Your task to perform on an android device: add a label to a message in the gmail app Image 0: 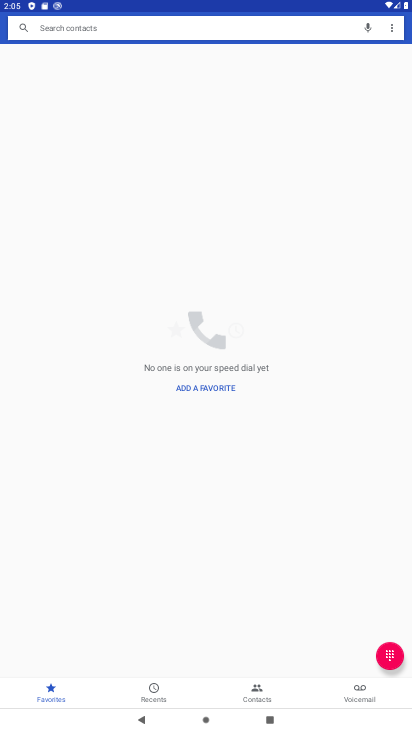
Step 0: press home button
Your task to perform on an android device: add a label to a message in the gmail app Image 1: 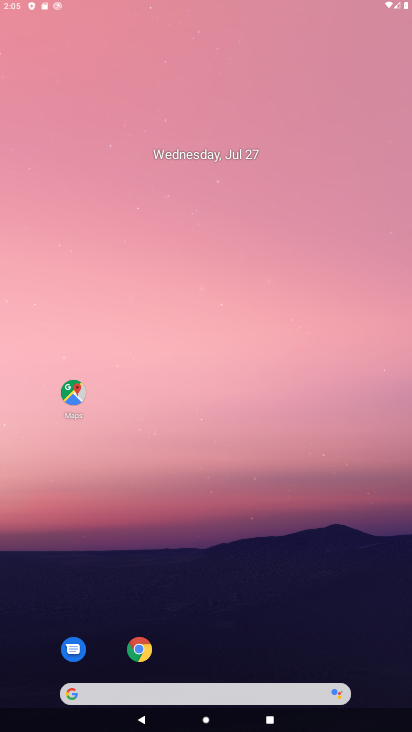
Step 1: drag from (381, 606) to (124, 7)
Your task to perform on an android device: add a label to a message in the gmail app Image 2: 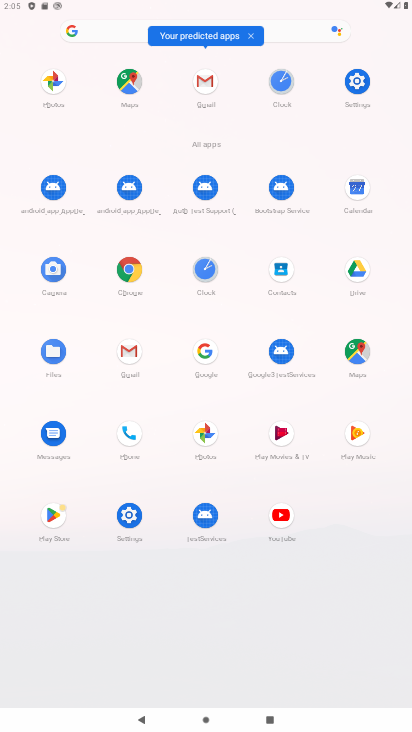
Step 2: click (130, 363)
Your task to perform on an android device: add a label to a message in the gmail app Image 3: 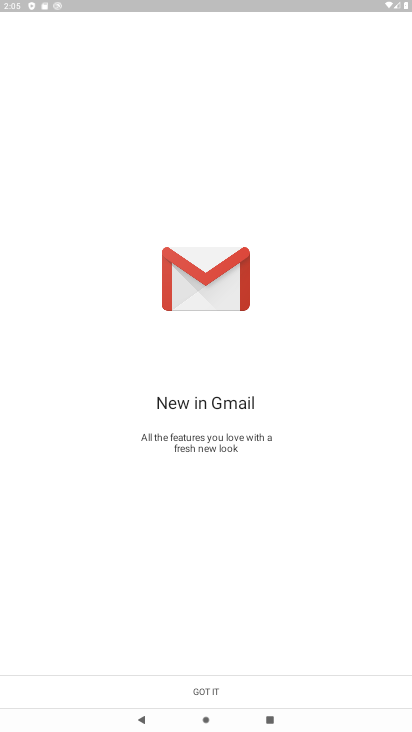
Step 3: click (203, 682)
Your task to perform on an android device: add a label to a message in the gmail app Image 4: 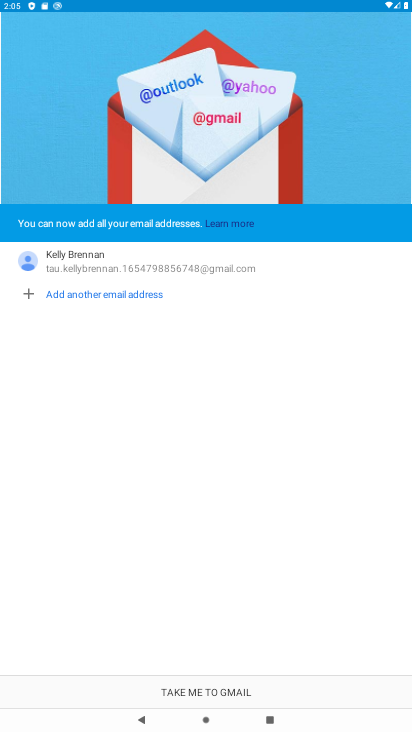
Step 4: click (198, 689)
Your task to perform on an android device: add a label to a message in the gmail app Image 5: 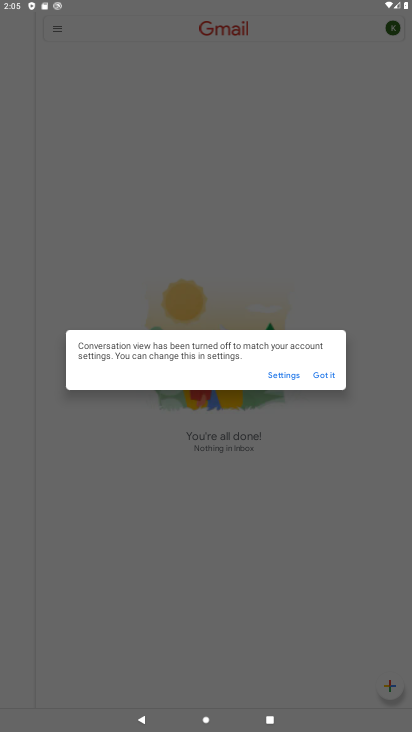
Step 5: click (322, 376)
Your task to perform on an android device: add a label to a message in the gmail app Image 6: 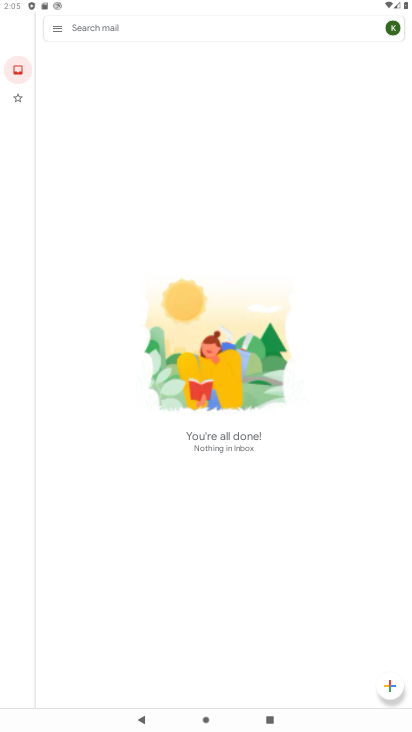
Step 6: task complete